Your task to perform on an android device: Search for Italian restaurants on Maps Image 0: 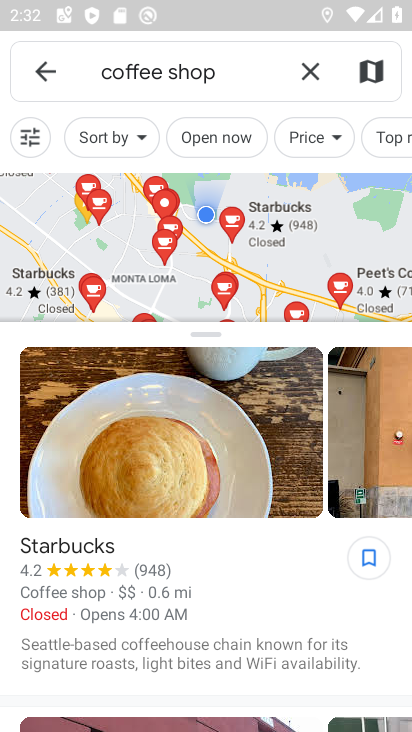
Step 0: click (303, 67)
Your task to perform on an android device: Search for Italian restaurants on Maps Image 1: 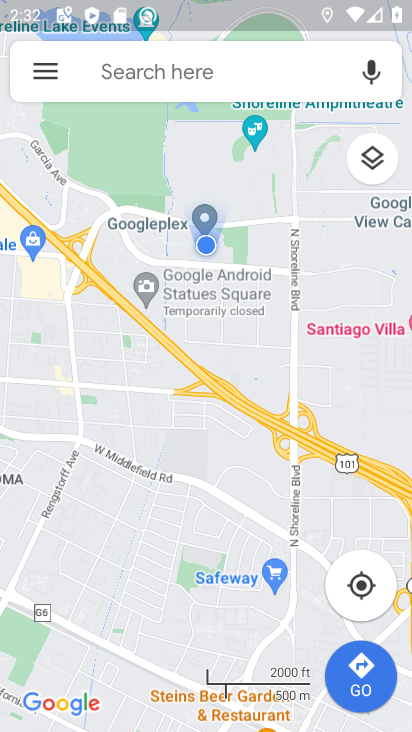
Step 1: click (151, 69)
Your task to perform on an android device: Search for Italian restaurants on Maps Image 2: 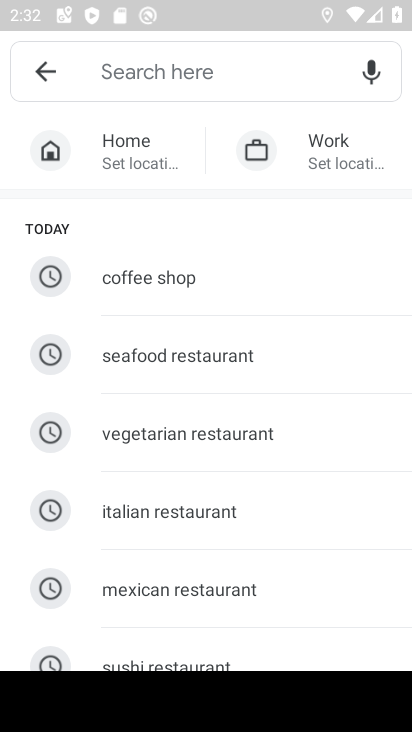
Step 2: click (152, 506)
Your task to perform on an android device: Search for Italian restaurants on Maps Image 3: 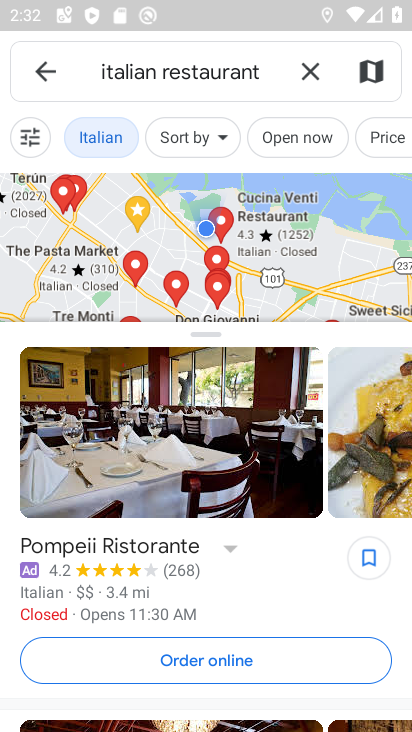
Step 3: task complete